Your task to perform on an android device: check google app version Image 0: 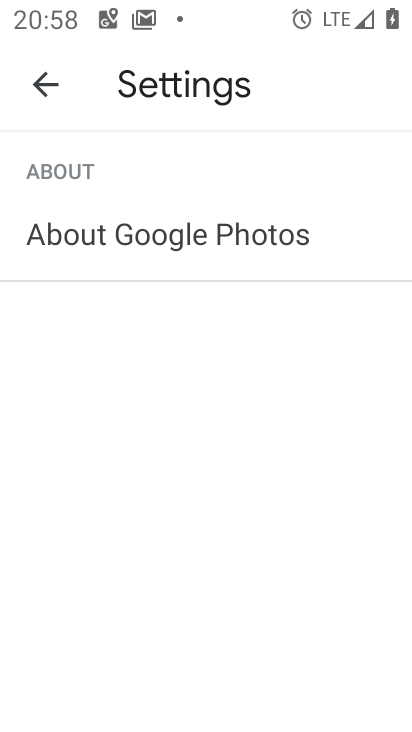
Step 0: press home button
Your task to perform on an android device: check google app version Image 1: 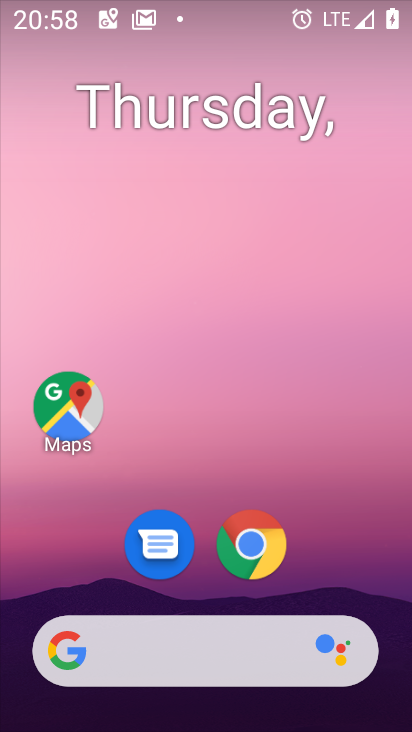
Step 1: click (76, 649)
Your task to perform on an android device: check google app version Image 2: 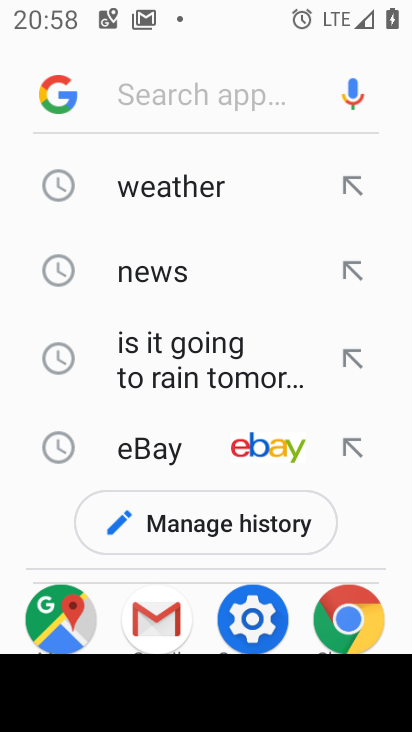
Step 2: click (64, 95)
Your task to perform on an android device: check google app version Image 3: 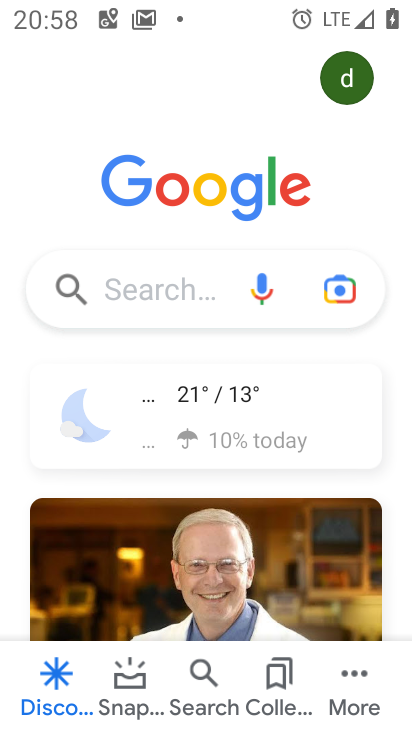
Step 3: click (364, 676)
Your task to perform on an android device: check google app version Image 4: 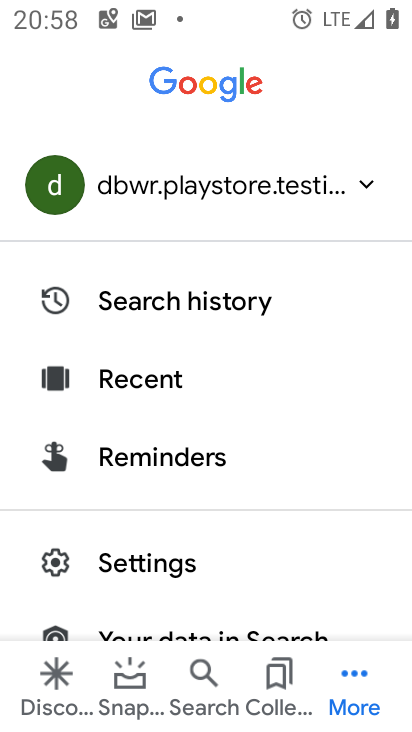
Step 4: click (185, 559)
Your task to perform on an android device: check google app version Image 5: 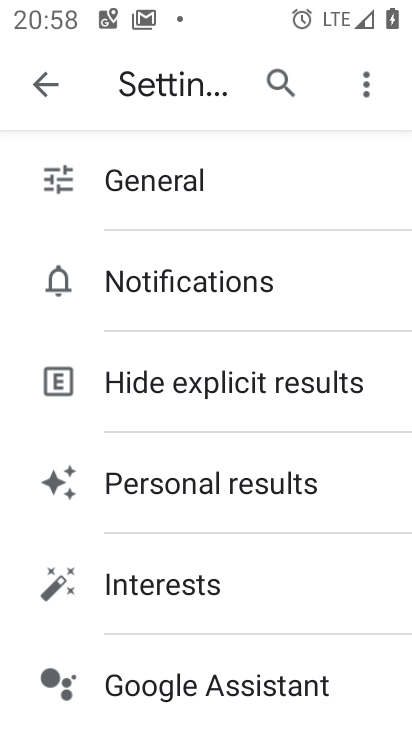
Step 5: drag from (198, 618) to (288, 101)
Your task to perform on an android device: check google app version Image 6: 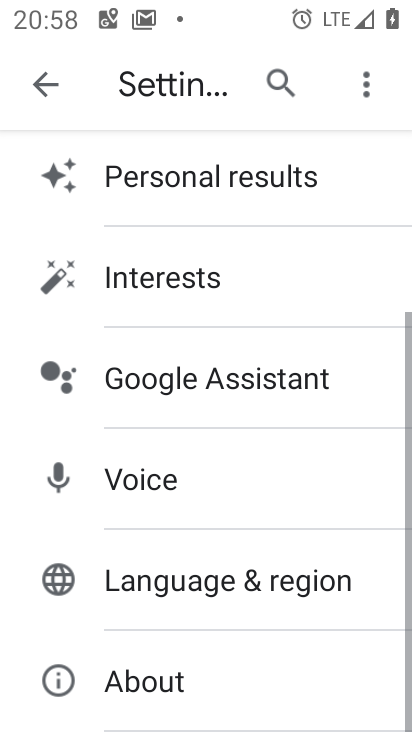
Step 6: drag from (111, 558) to (245, 41)
Your task to perform on an android device: check google app version Image 7: 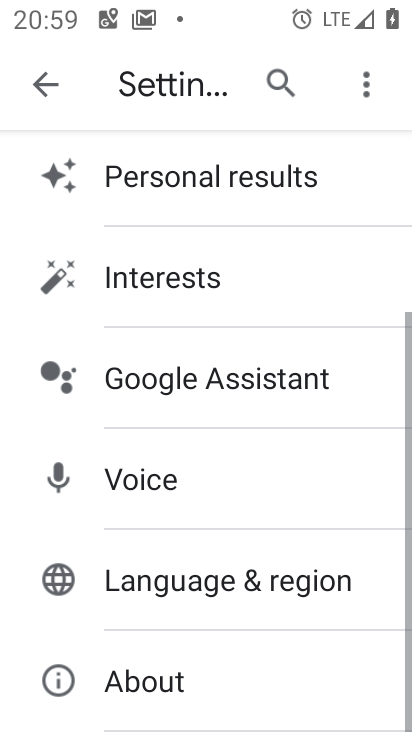
Step 7: click (114, 678)
Your task to perform on an android device: check google app version Image 8: 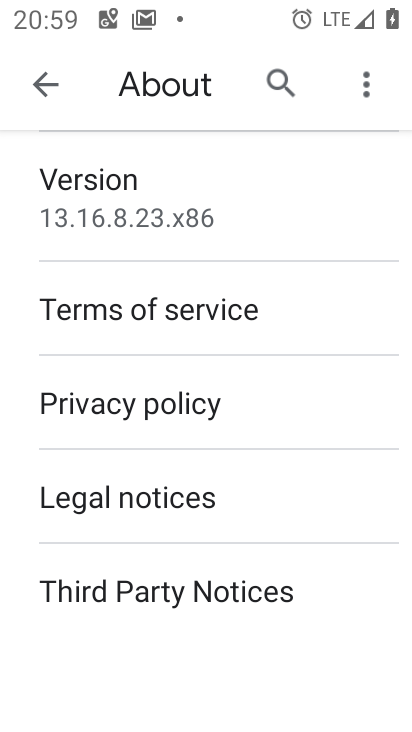
Step 8: click (182, 237)
Your task to perform on an android device: check google app version Image 9: 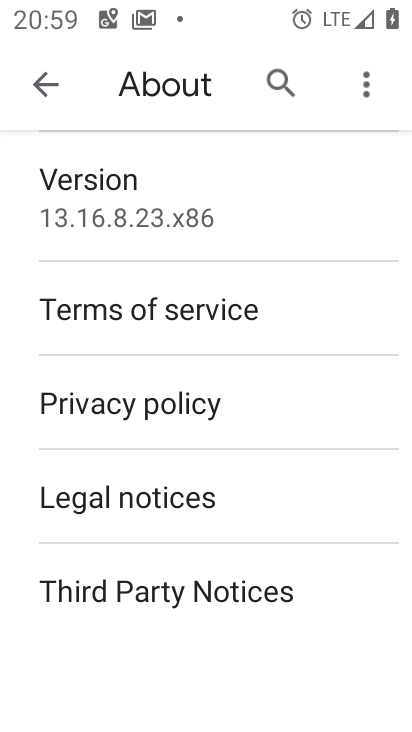
Step 9: task complete